Your task to perform on an android device: Open Google Maps and go to "Timeline" Image 0: 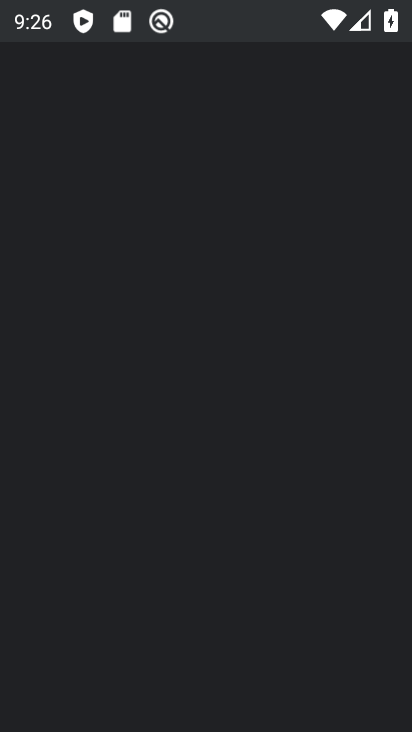
Step 0: drag from (237, 577) to (265, 108)
Your task to perform on an android device: Open Google Maps and go to "Timeline" Image 1: 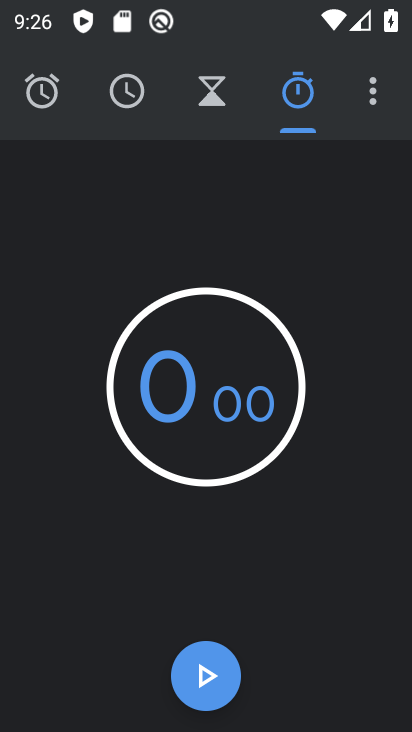
Step 1: click (385, 81)
Your task to perform on an android device: Open Google Maps and go to "Timeline" Image 2: 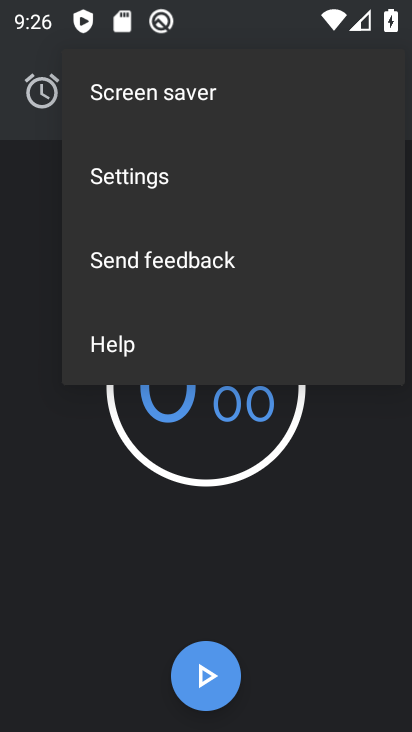
Step 2: press home button
Your task to perform on an android device: Open Google Maps and go to "Timeline" Image 3: 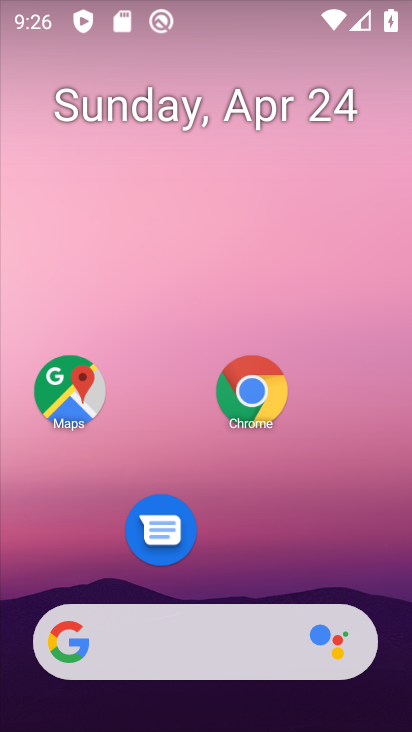
Step 3: click (47, 406)
Your task to perform on an android device: Open Google Maps and go to "Timeline" Image 4: 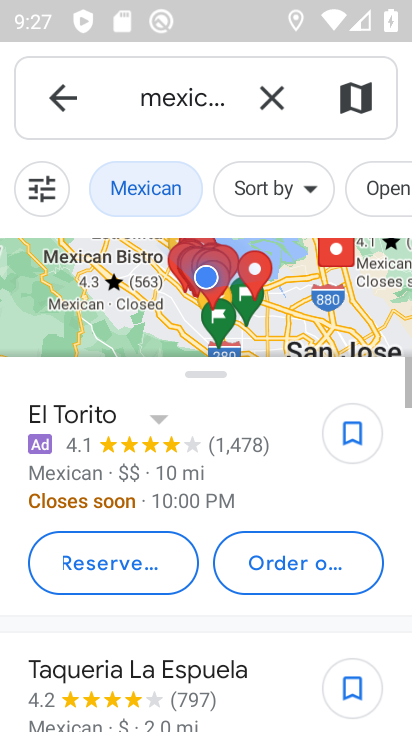
Step 4: click (53, 87)
Your task to perform on an android device: Open Google Maps and go to "Timeline" Image 5: 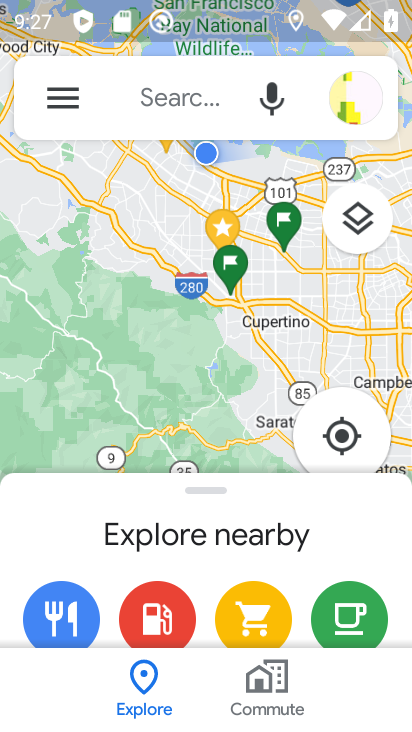
Step 5: click (59, 82)
Your task to perform on an android device: Open Google Maps and go to "Timeline" Image 6: 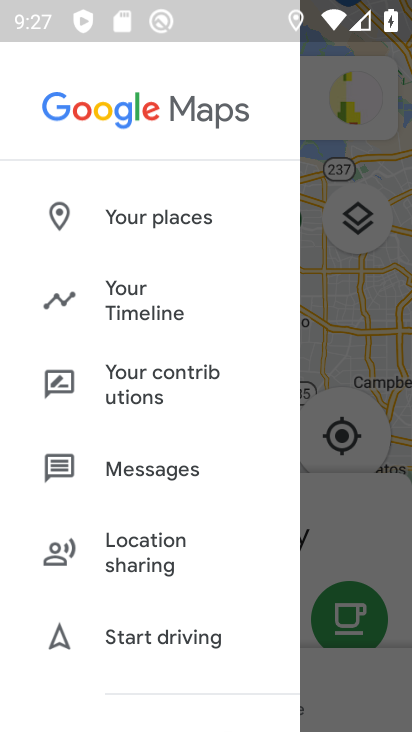
Step 6: click (144, 319)
Your task to perform on an android device: Open Google Maps and go to "Timeline" Image 7: 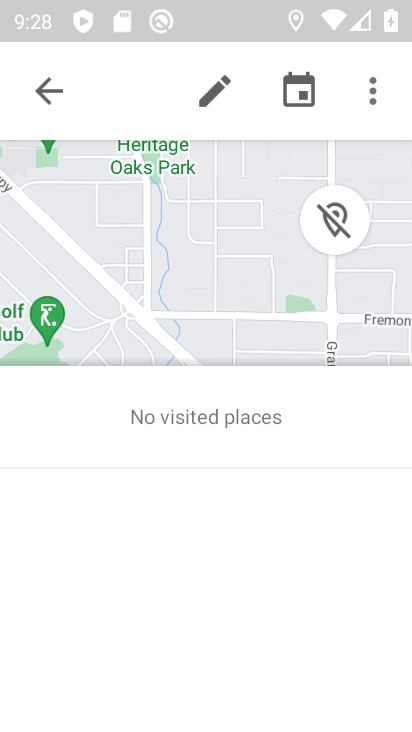
Step 7: task complete